Your task to perform on an android device: clear all cookies in the chrome app Image 0: 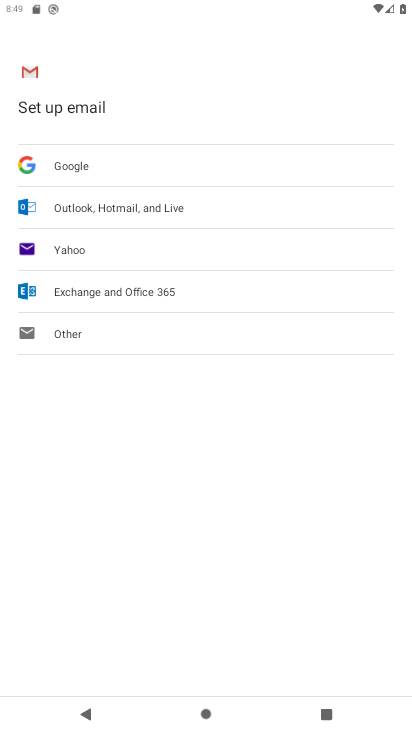
Step 0: press back button
Your task to perform on an android device: clear all cookies in the chrome app Image 1: 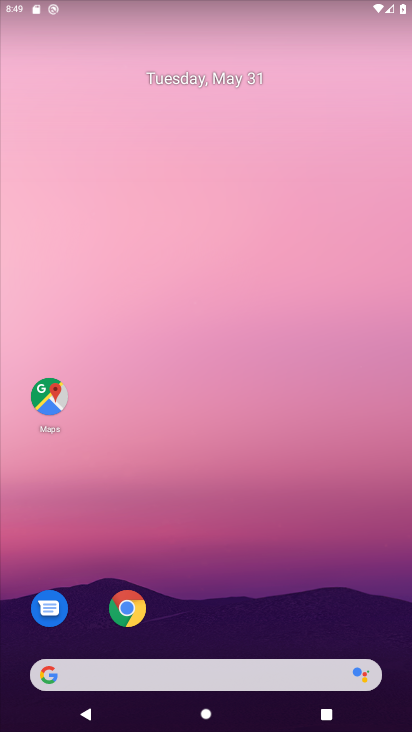
Step 1: click (127, 607)
Your task to perform on an android device: clear all cookies in the chrome app Image 2: 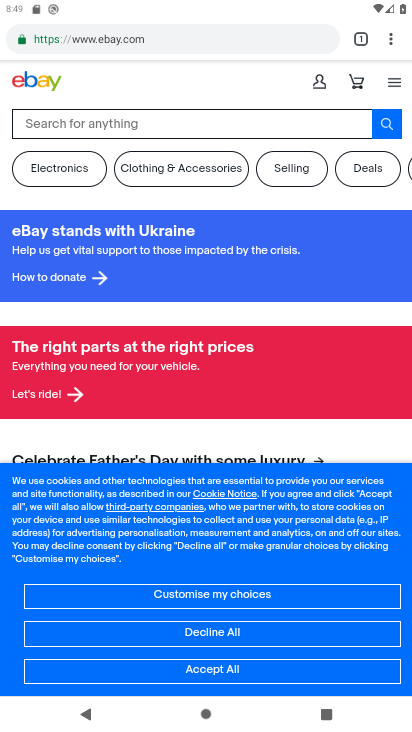
Step 2: click (391, 41)
Your task to perform on an android device: clear all cookies in the chrome app Image 3: 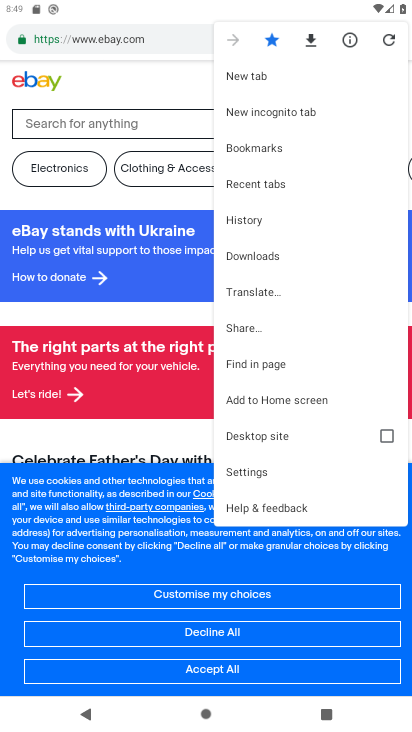
Step 3: click (256, 467)
Your task to perform on an android device: clear all cookies in the chrome app Image 4: 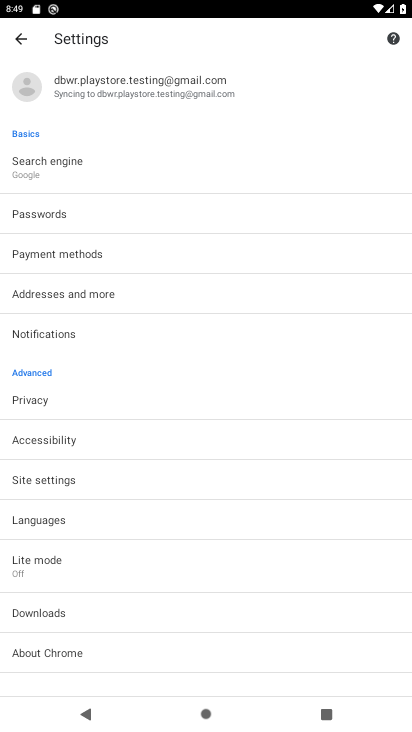
Step 4: click (38, 399)
Your task to perform on an android device: clear all cookies in the chrome app Image 5: 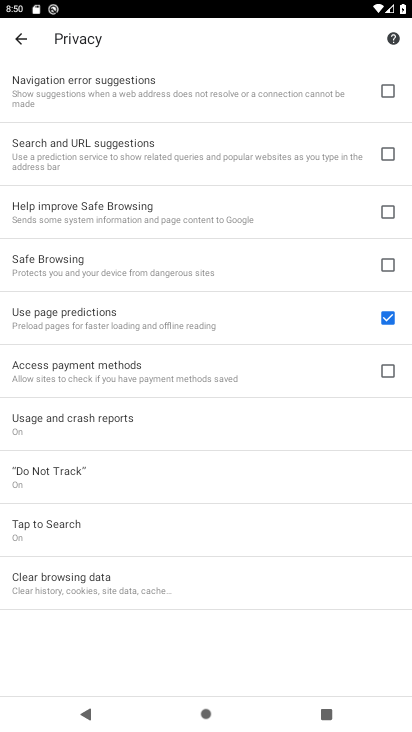
Step 5: click (97, 588)
Your task to perform on an android device: clear all cookies in the chrome app Image 6: 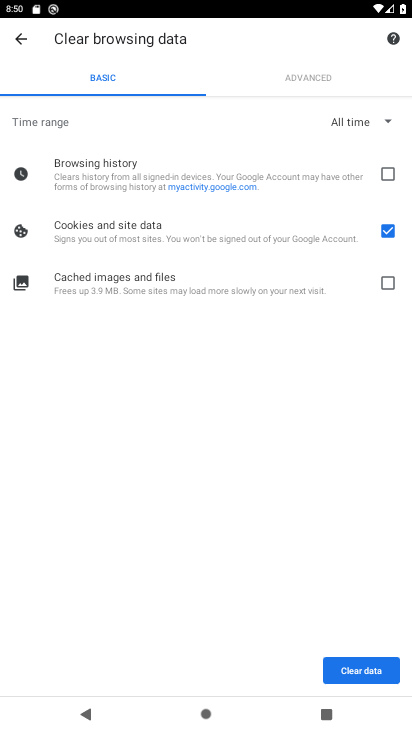
Step 6: click (362, 667)
Your task to perform on an android device: clear all cookies in the chrome app Image 7: 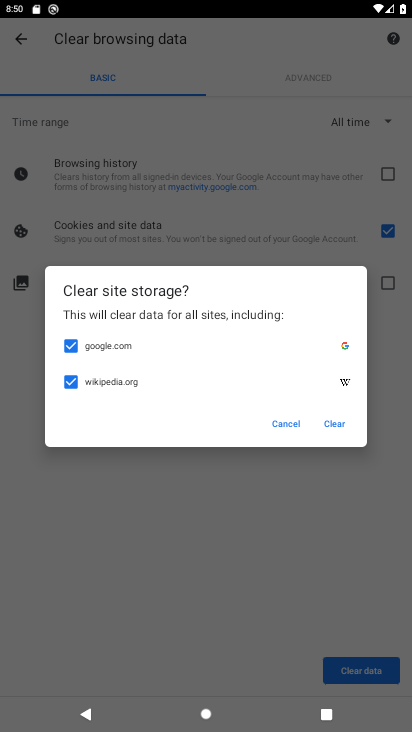
Step 7: click (334, 425)
Your task to perform on an android device: clear all cookies in the chrome app Image 8: 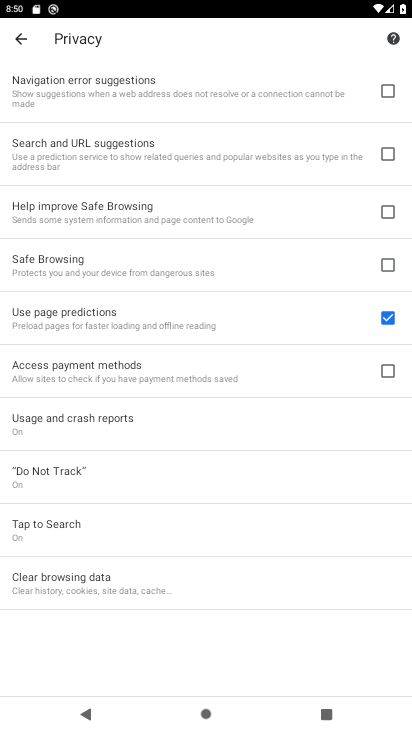
Step 8: task complete